Your task to perform on an android device: Is it going to rain tomorrow? Image 0: 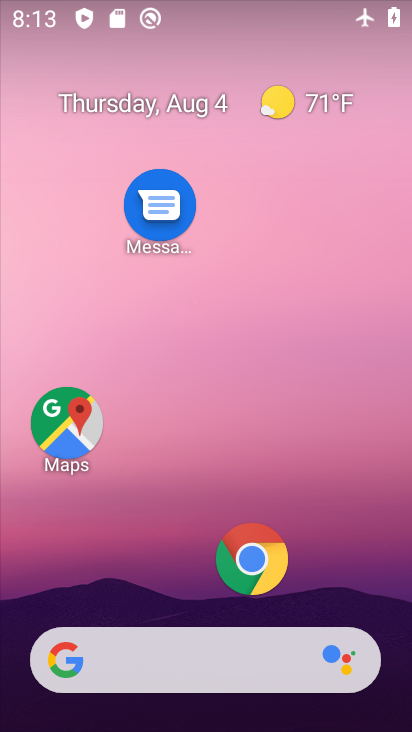
Step 0: drag from (315, 617) to (230, 80)
Your task to perform on an android device: Is it going to rain tomorrow? Image 1: 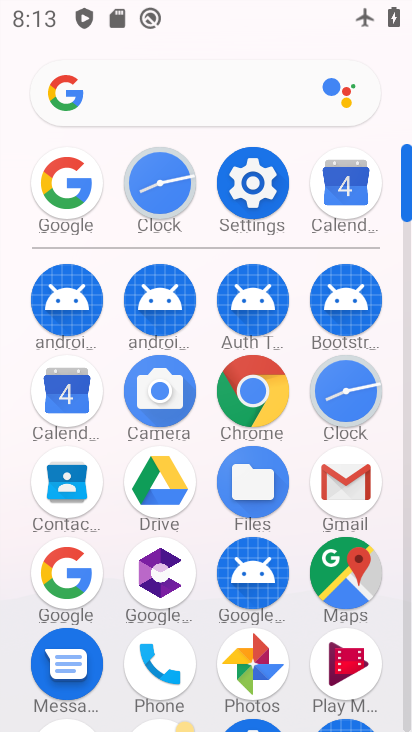
Step 1: click (48, 204)
Your task to perform on an android device: Is it going to rain tomorrow? Image 2: 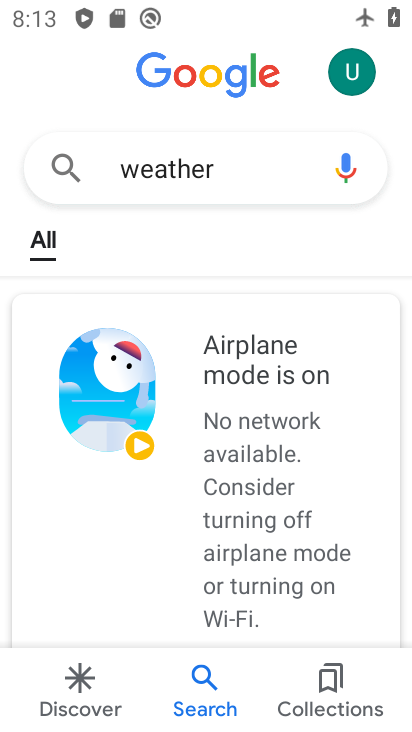
Step 2: task complete